Your task to perform on an android device: Open Google Chrome and click the shortcut for Amazon.com Image 0: 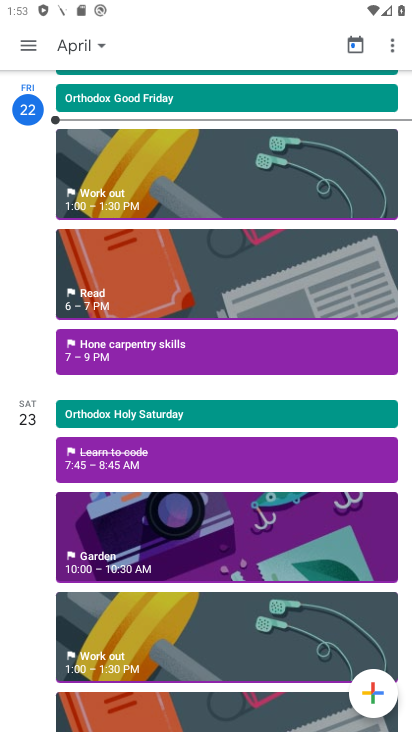
Step 0: press home button
Your task to perform on an android device: Open Google Chrome and click the shortcut for Amazon.com Image 1: 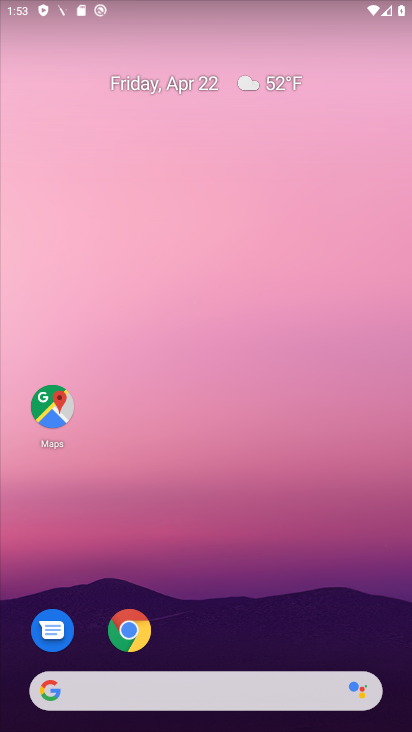
Step 1: click (149, 632)
Your task to perform on an android device: Open Google Chrome and click the shortcut for Amazon.com Image 2: 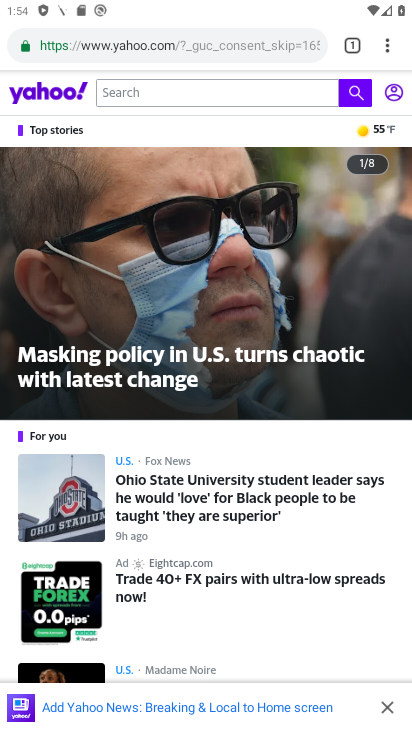
Step 2: click (353, 51)
Your task to perform on an android device: Open Google Chrome and click the shortcut for Amazon.com Image 3: 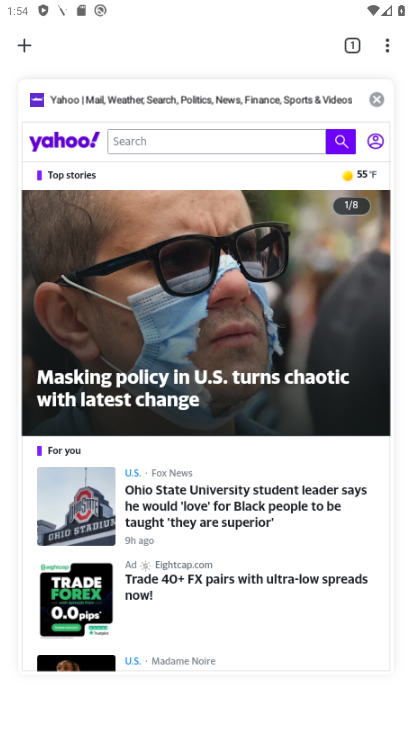
Step 3: click (25, 53)
Your task to perform on an android device: Open Google Chrome and click the shortcut for Amazon.com Image 4: 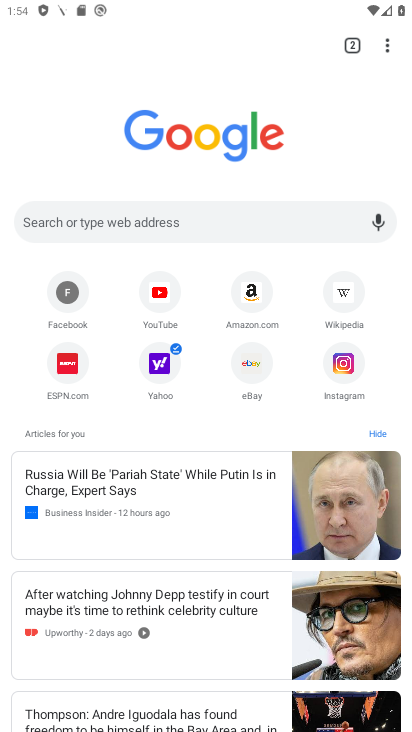
Step 4: click (254, 298)
Your task to perform on an android device: Open Google Chrome and click the shortcut for Amazon.com Image 5: 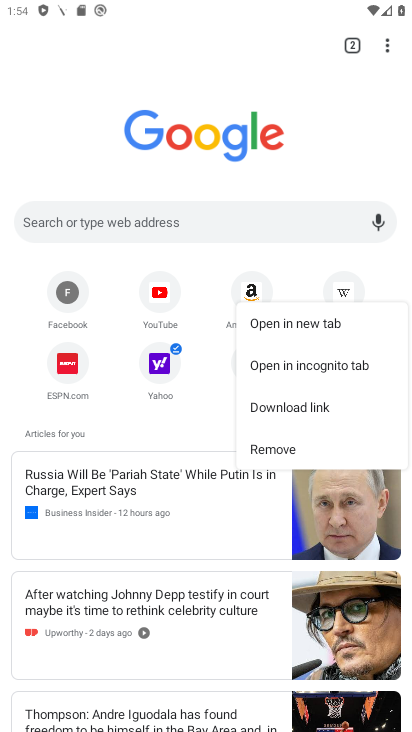
Step 5: click (253, 287)
Your task to perform on an android device: Open Google Chrome and click the shortcut for Amazon.com Image 6: 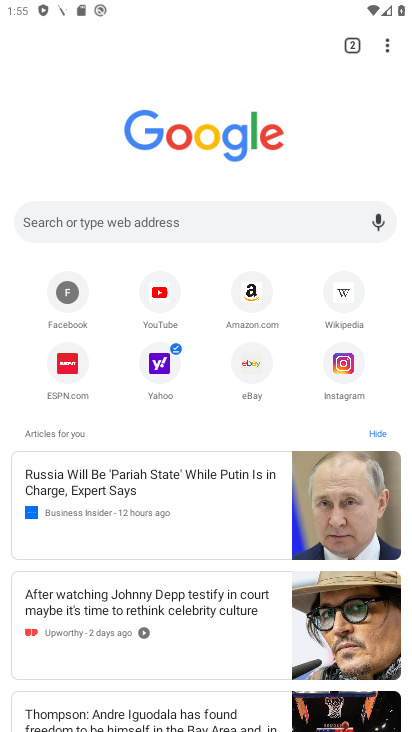
Step 6: click (255, 300)
Your task to perform on an android device: Open Google Chrome and click the shortcut for Amazon.com Image 7: 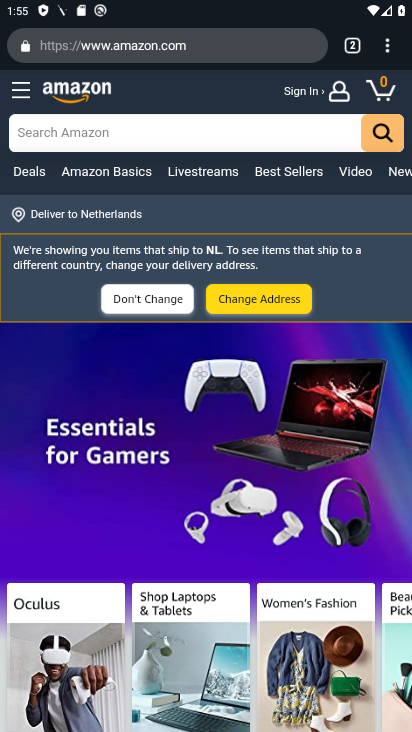
Step 7: task complete